Your task to perform on an android device: search for starred emails in the gmail app Image 0: 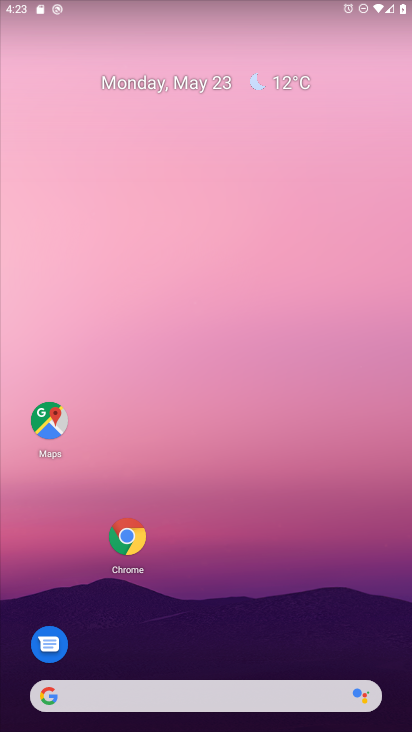
Step 0: drag from (297, 178) to (304, 117)
Your task to perform on an android device: search for starred emails in the gmail app Image 1: 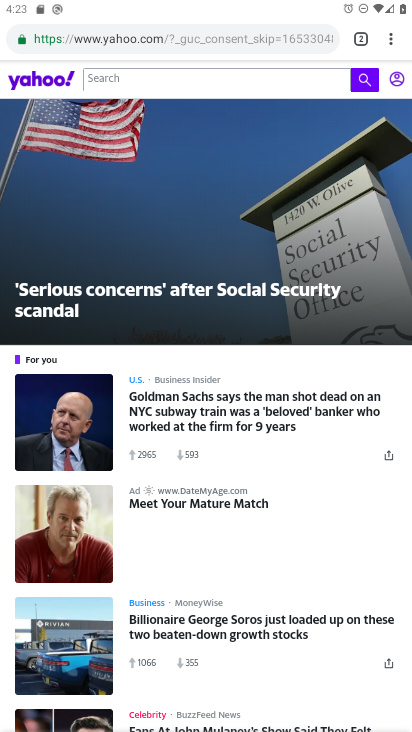
Step 1: press home button
Your task to perform on an android device: search for starred emails in the gmail app Image 2: 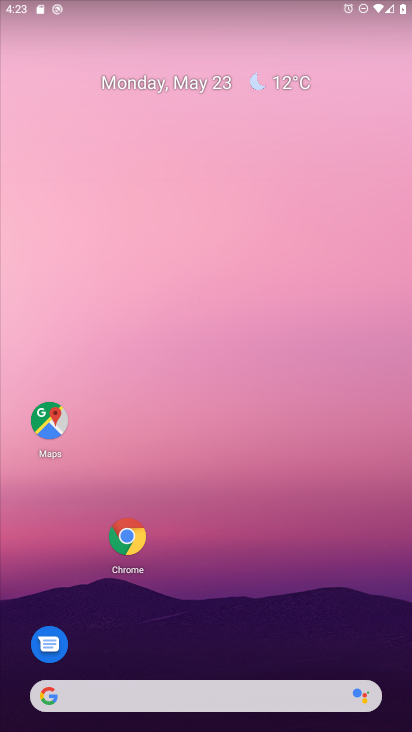
Step 2: drag from (249, 571) to (250, 170)
Your task to perform on an android device: search for starred emails in the gmail app Image 3: 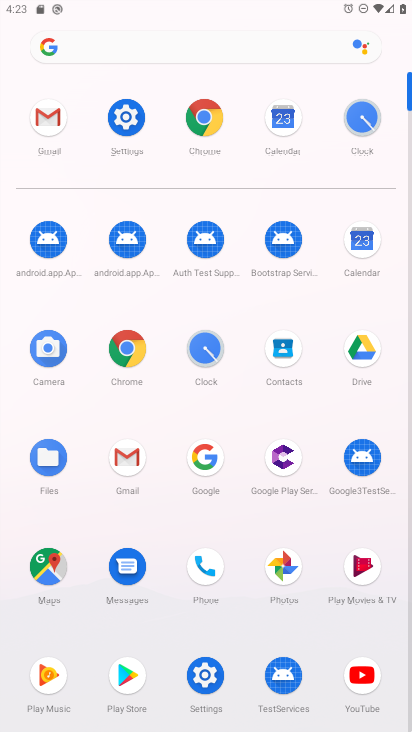
Step 3: click (129, 454)
Your task to perform on an android device: search for starred emails in the gmail app Image 4: 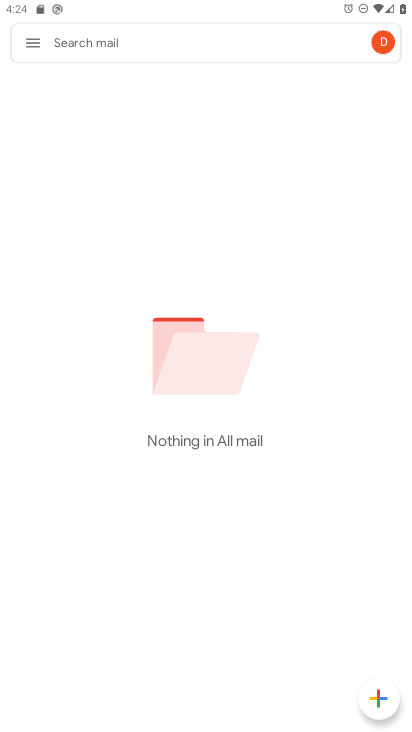
Step 4: click (34, 43)
Your task to perform on an android device: search for starred emails in the gmail app Image 5: 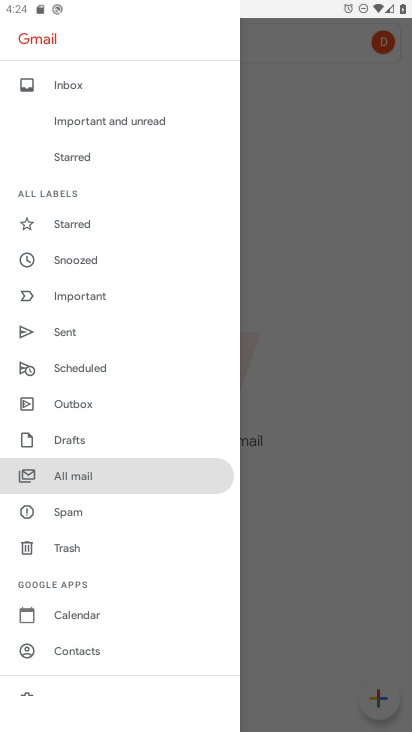
Step 5: click (100, 217)
Your task to perform on an android device: search for starred emails in the gmail app Image 6: 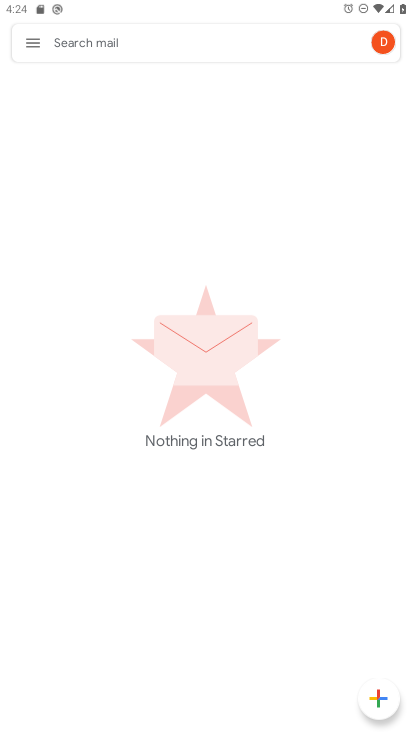
Step 6: task complete